Your task to perform on an android device: check android version Image 0: 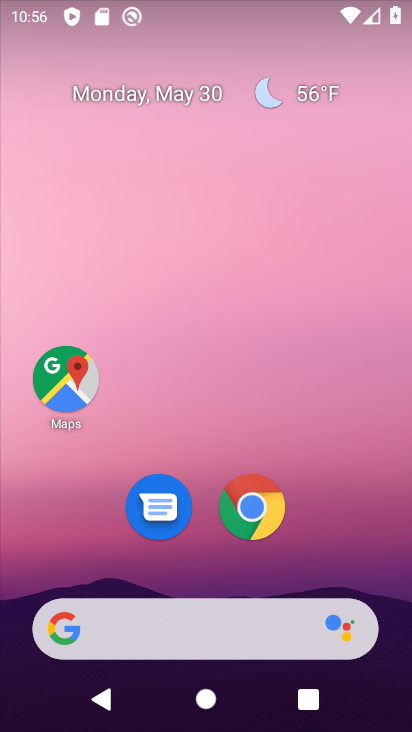
Step 0: drag from (166, 726) to (182, 75)
Your task to perform on an android device: check android version Image 1: 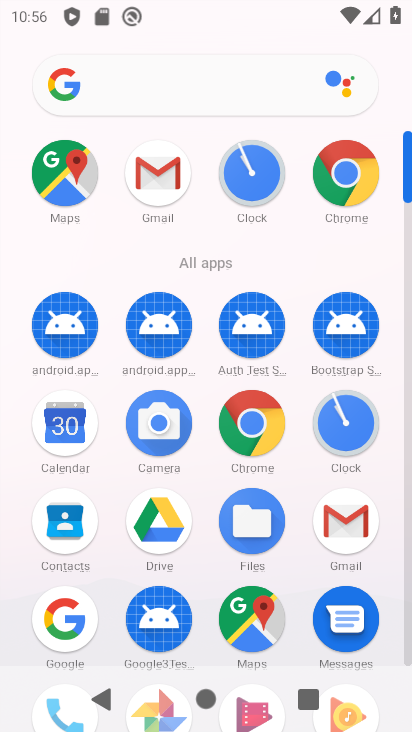
Step 1: drag from (205, 527) to (251, 197)
Your task to perform on an android device: check android version Image 2: 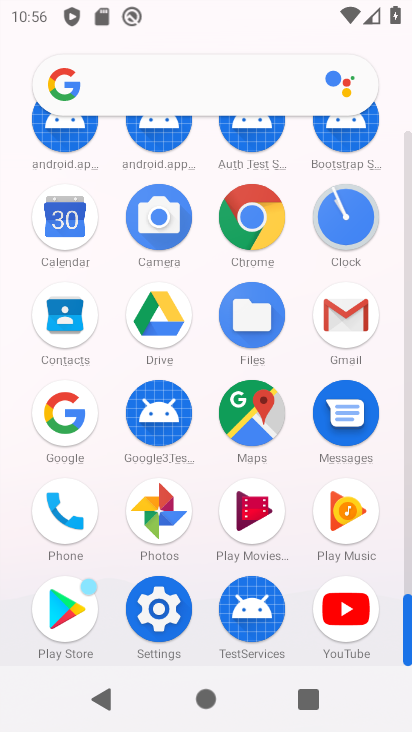
Step 2: click (144, 604)
Your task to perform on an android device: check android version Image 3: 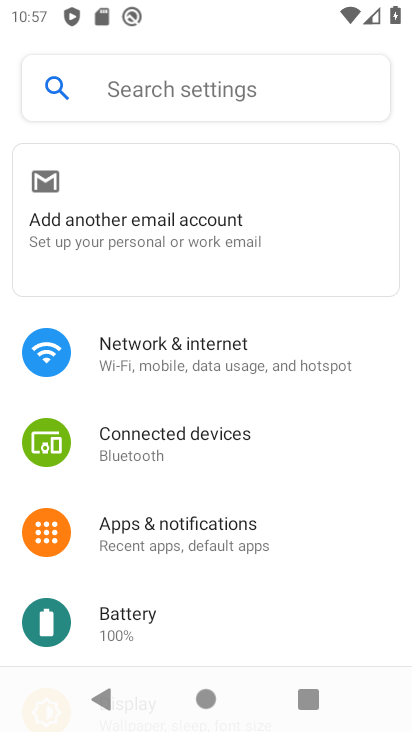
Step 3: drag from (203, 519) to (223, 89)
Your task to perform on an android device: check android version Image 4: 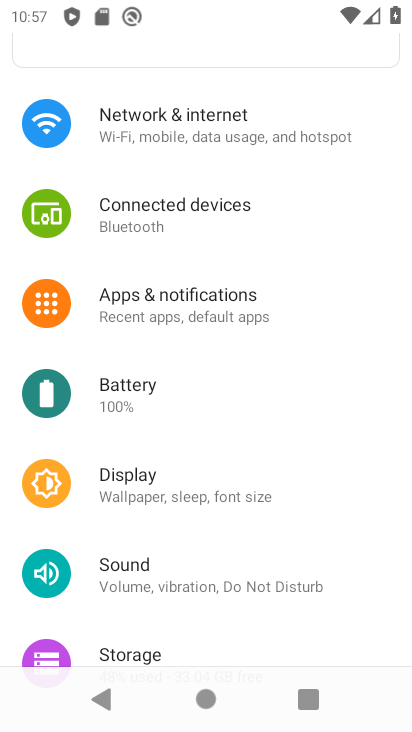
Step 4: drag from (201, 564) to (286, 154)
Your task to perform on an android device: check android version Image 5: 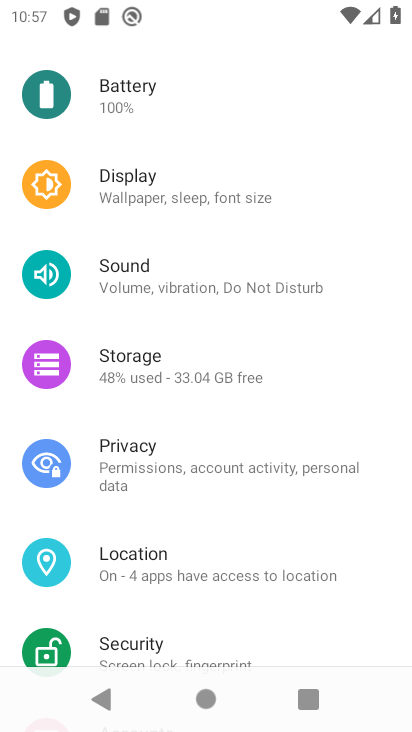
Step 5: drag from (189, 577) to (318, 93)
Your task to perform on an android device: check android version Image 6: 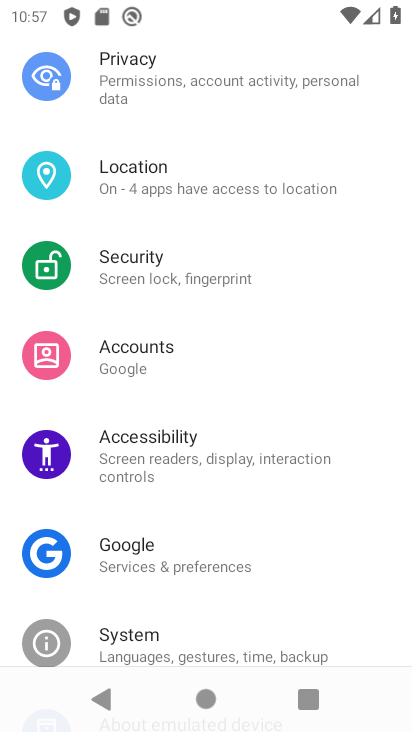
Step 6: drag from (235, 602) to (245, 304)
Your task to perform on an android device: check android version Image 7: 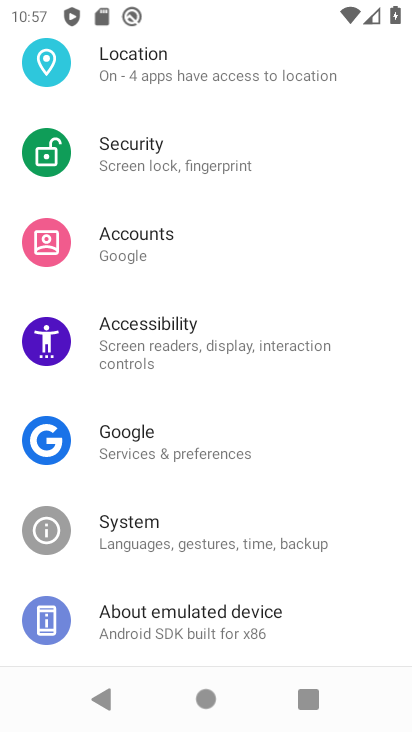
Step 7: click (136, 639)
Your task to perform on an android device: check android version Image 8: 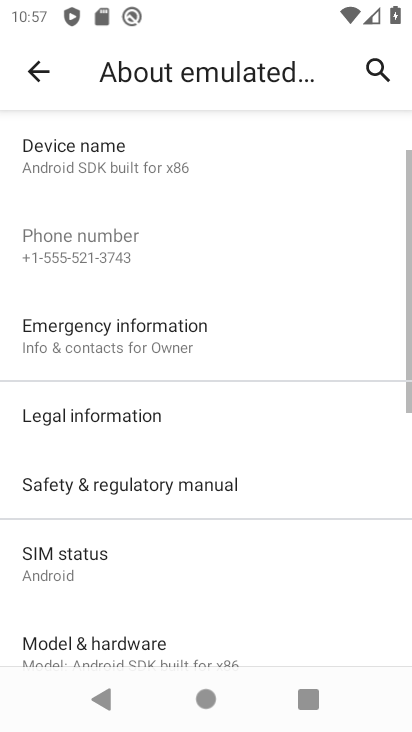
Step 8: drag from (182, 568) to (176, 178)
Your task to perform on an android device: check android version Image 9: 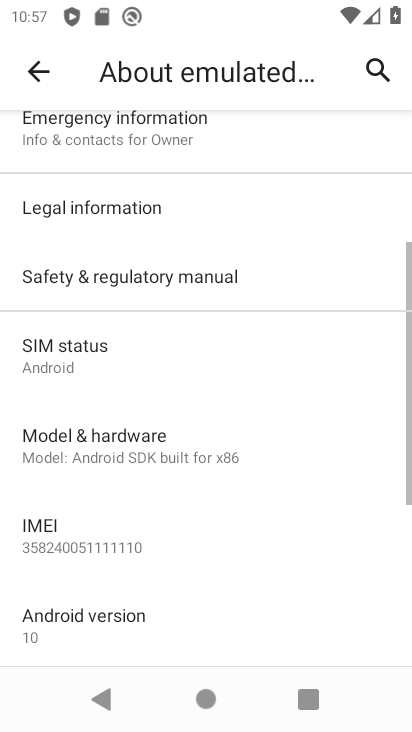
Step 9: click (138, 622)
Your task to perform on an android device: check android version Image 10: 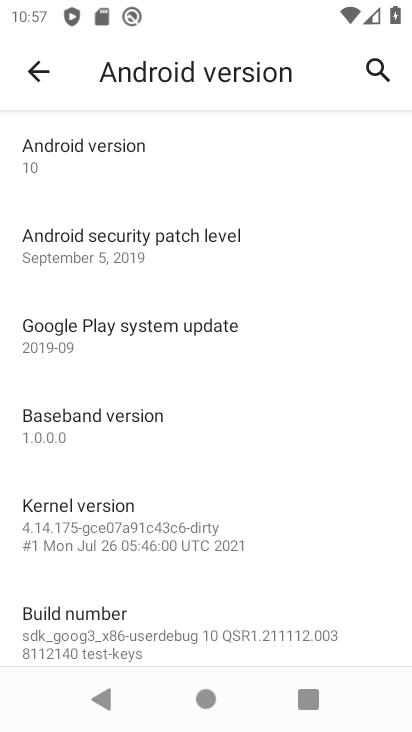
Step 10: task complete